Your task to perform on an android device: delete browsing data in the chrome app Image 0: 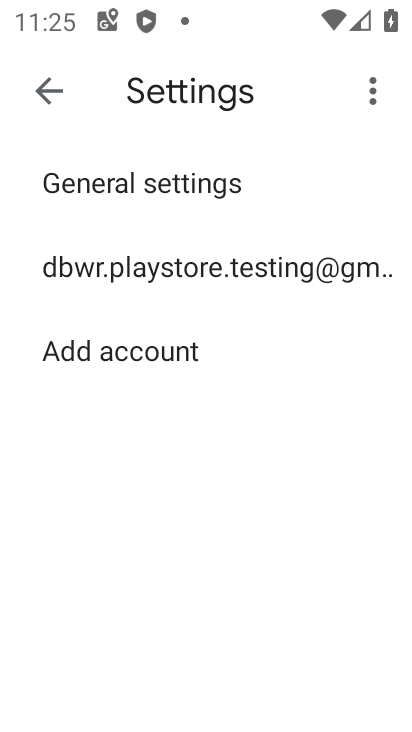
Step 0: press home button
Your task to perform on an android device: delete browsing data in the chrome app Image 1: 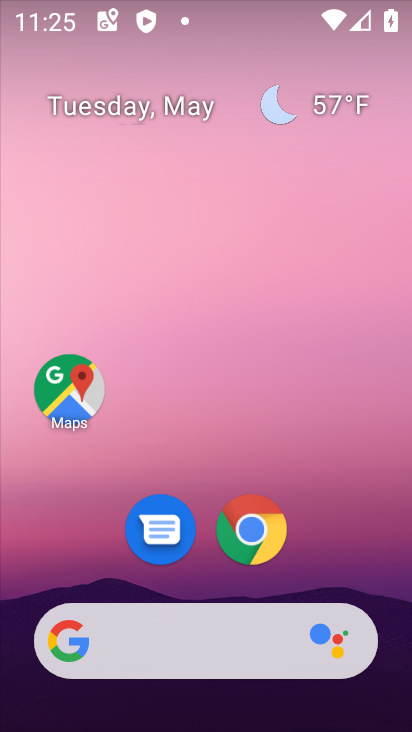
Step 1: click (247, 530)
Your task to perform on an android device: delete browsing data in the chrome app Image 2: 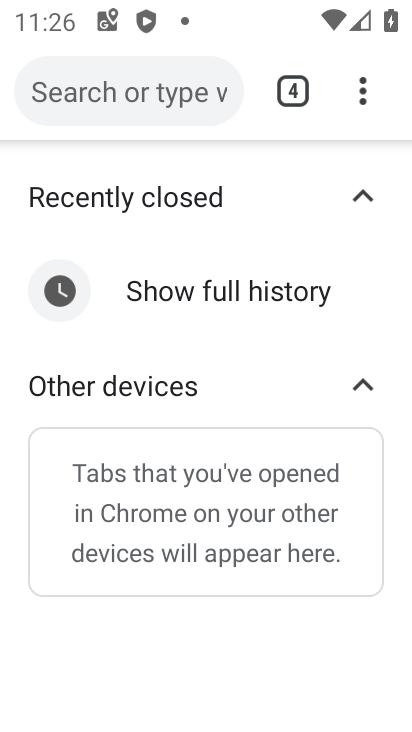
Step 2: click (350, 86)
Your task to perform on an android device: delete browsing data in the chrome app Image 3: 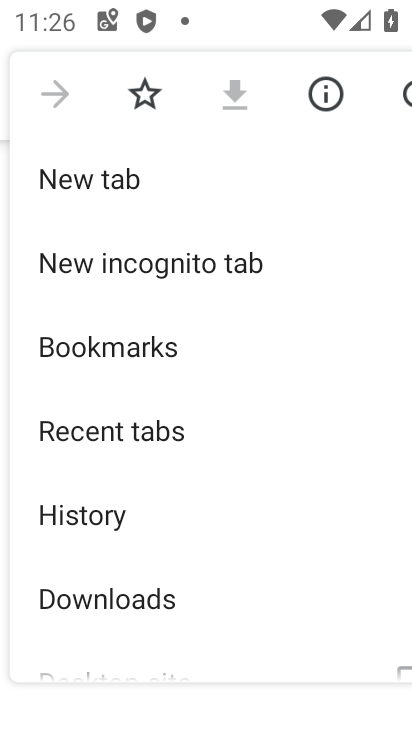
Step 3: click (88, 499)
Your task to perform on an android device: delete browsing data in the chrome app Image 4: 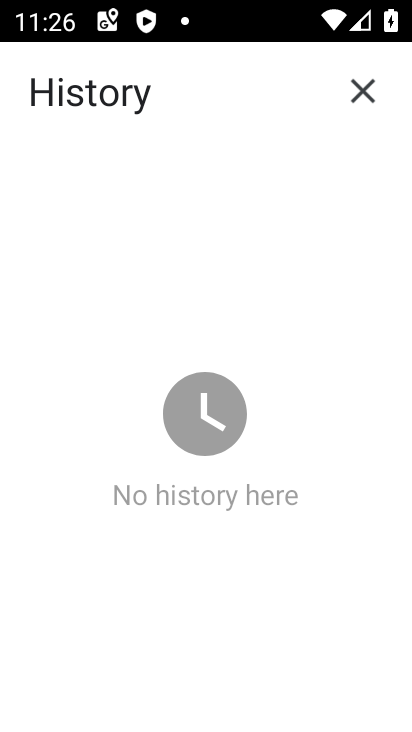
Step 4: task complete